Your task to perform on an android device: open device folders in google photos Image 0: 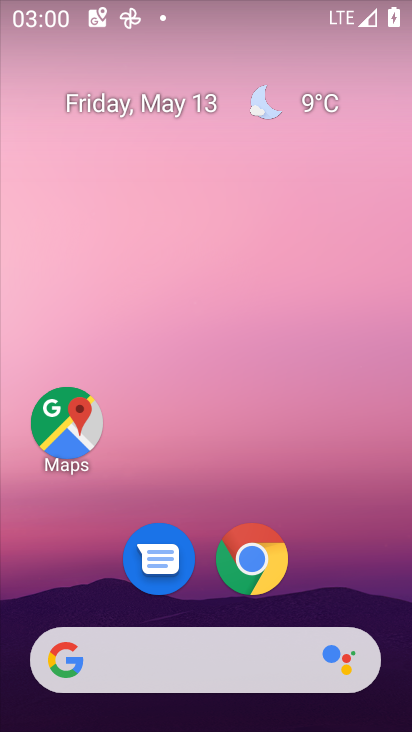
Step 0: drag from (395, 656) to (390, 260)
Your task to perform on an android device: open device folders in google photos Image 1: 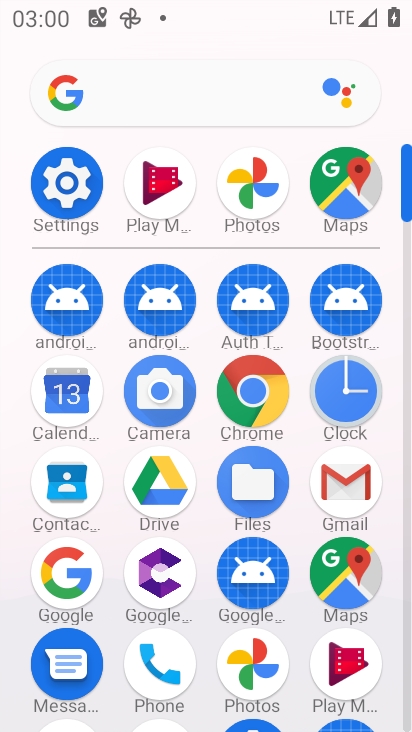
Step 1: click (250, 649)
Your task to perform on an android device: open device folders in google photos Image 2: 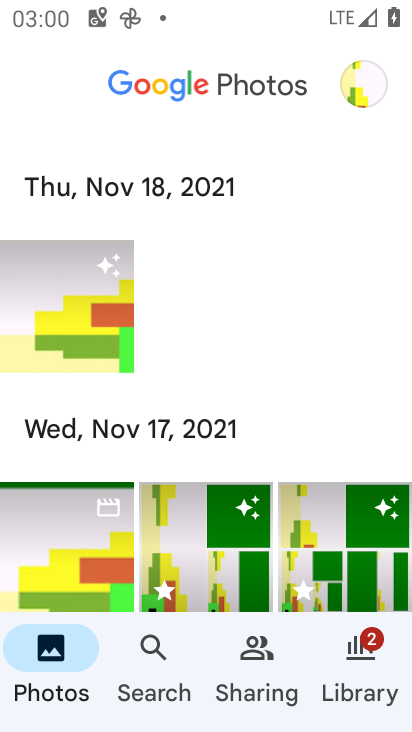
Step 2: click (346, 80)
Your task to perform on an android device: open device folders in google photos Image 3: 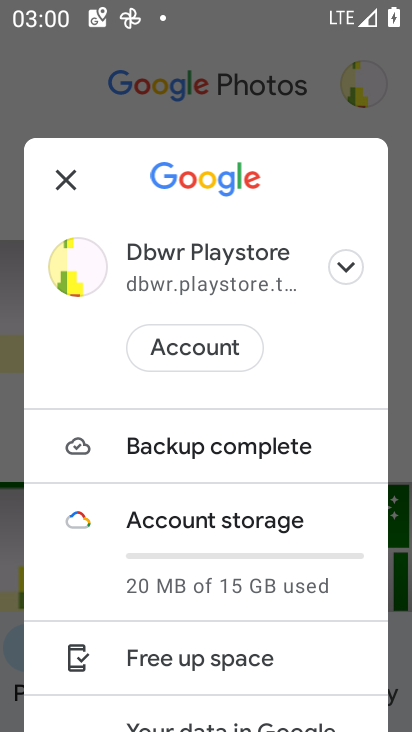
Step 3: click (81, 168)
Your task to perform on an android device: open device folders in google photos Image 4: 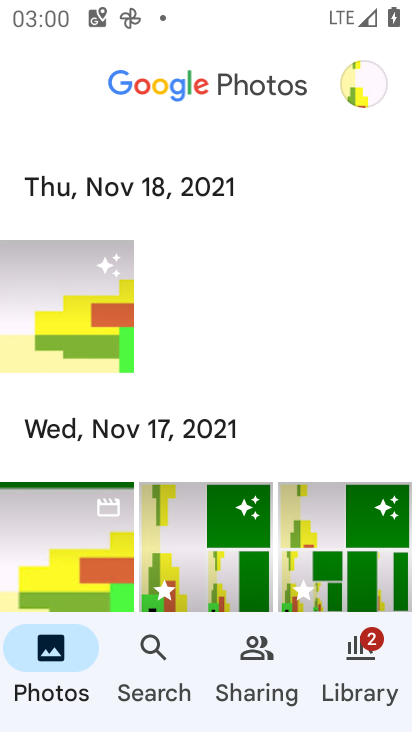
Step 4: task complete